Your task to perform on an android device: Open ESPN.com Image 0: 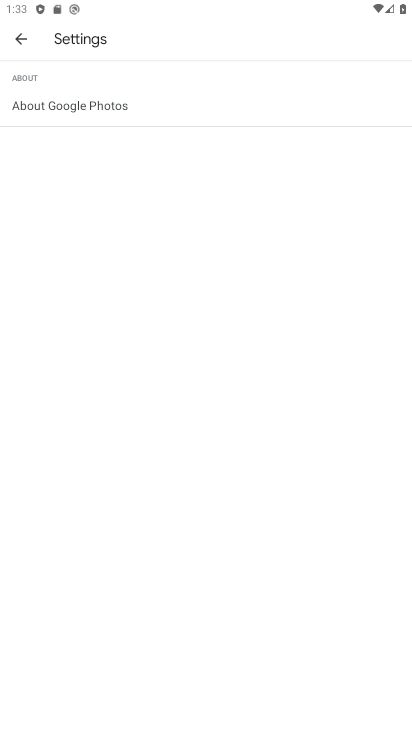
Step 0: press home button
Your task to perform on an android device: Open ESPN.com Image 1: 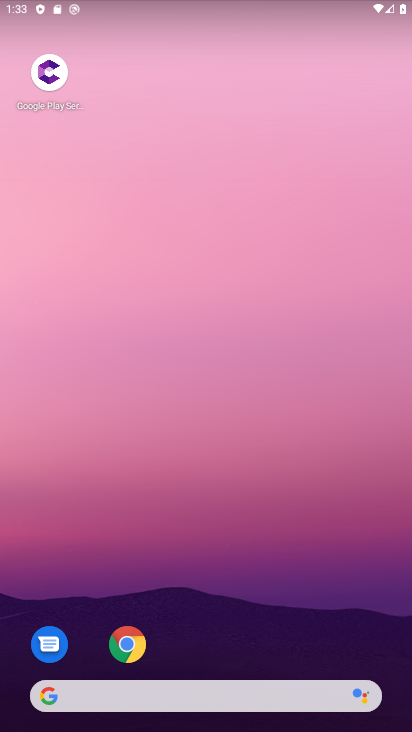
Step 1: drag from (193, 646) to (358, 98)
Your task to perform on an android device: Open ESPN.com Image 2: 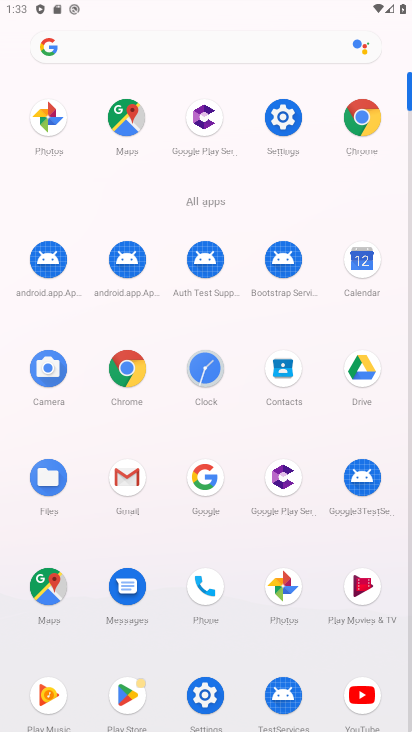
Step 2: click (134, 372)
Your task to perform on an android device: Open ESPN.com Image 3: 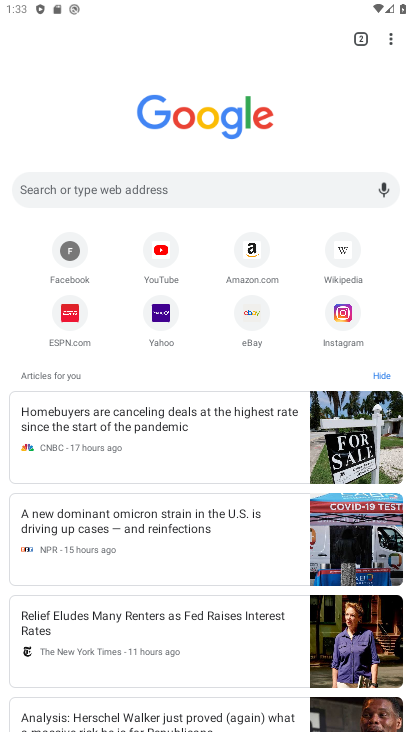
Step 3: click (73, 325)
Your task to perform on an android device: Open ESPN.com Image 4: 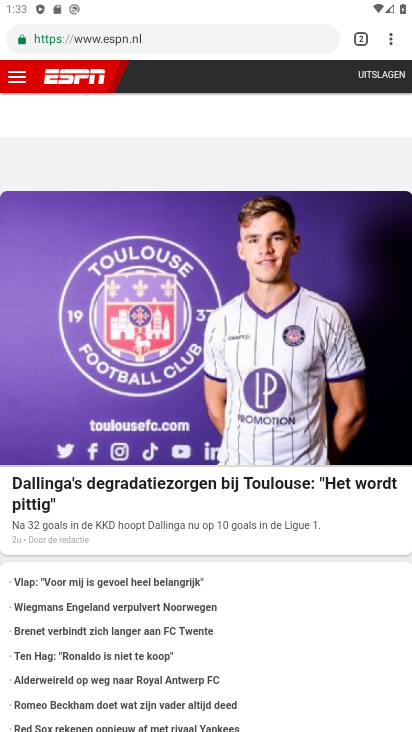
Step 4: task complete